Your task to perform on an android device: open sync settings in chrome Image 0: 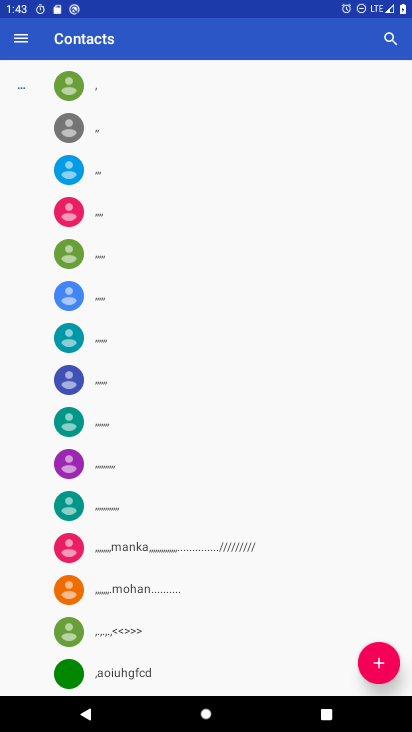
Step 0: press home button
Your task to perform on an android device: open sync settings in chrome Image 1: 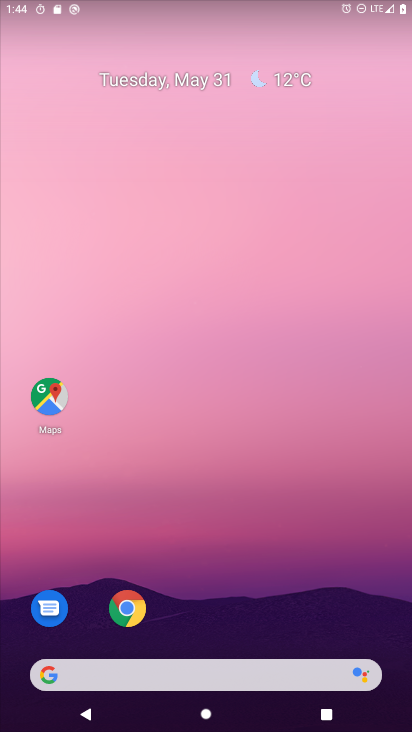
Step 1: click (123, 617)
Your task to perform on an android device: open sync settings in chrome Image 2: 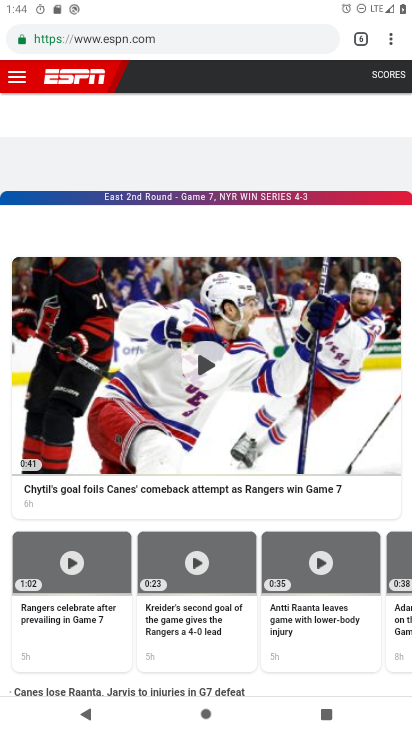
Step 2: click (393, 37)
Your task to perform on an android device: open sync settings in chrome Image 3: 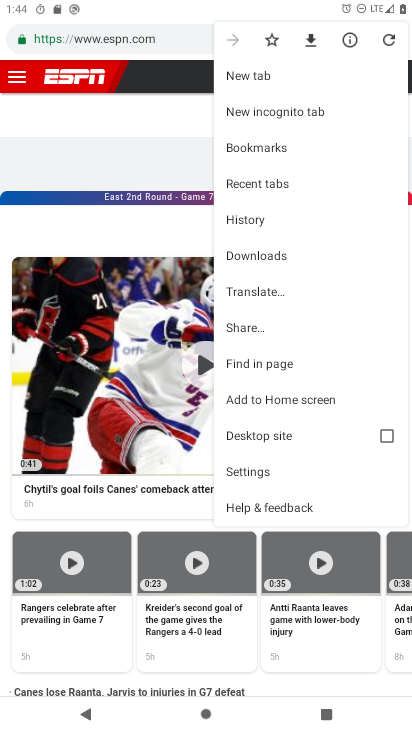
Step 3: click (250, 470)
Your task to perform on an android device: open sync settings in chrome Image 4: 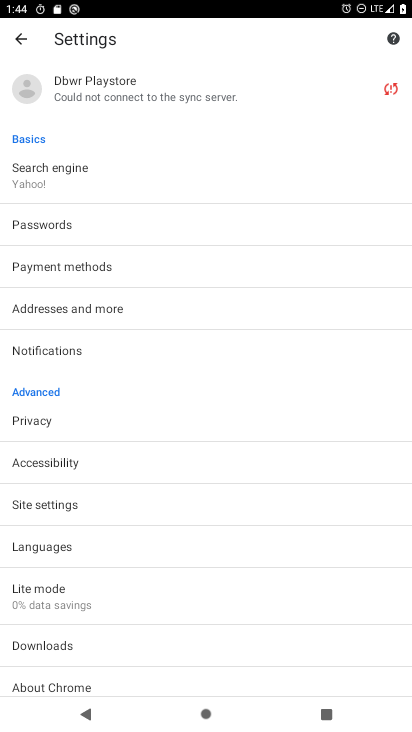
Step 4: click (110, 96)
Your task to perform on an android device: open sync settings in chrome Image 5: 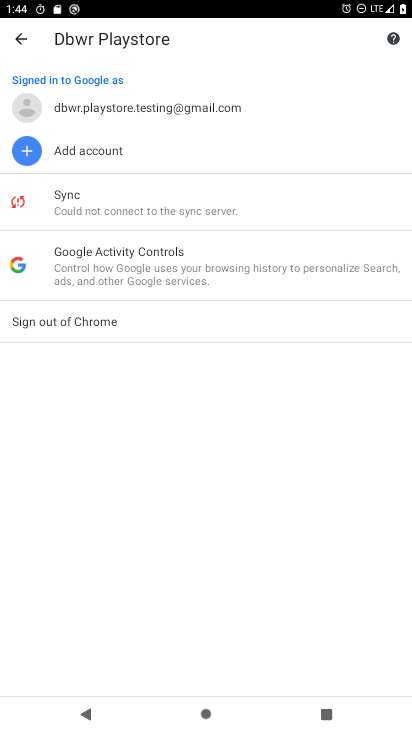
Step 5: click (58, 200)
Your task to perform on an android device: open sync settings in chrome Image 6: 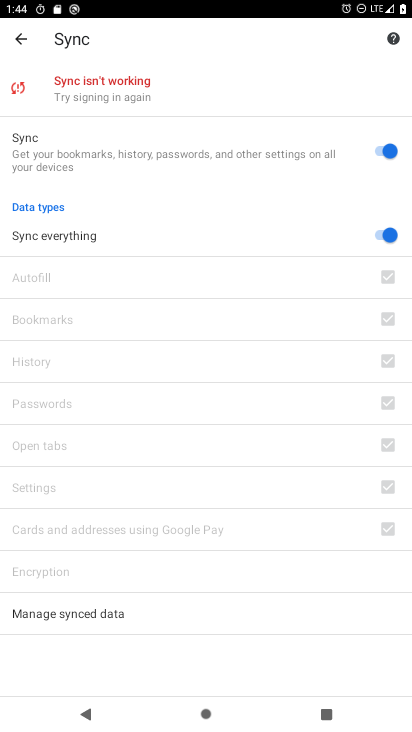
Step 6: task complete